Your task to perform on an android device: find which apps use the phone's location Image 0: 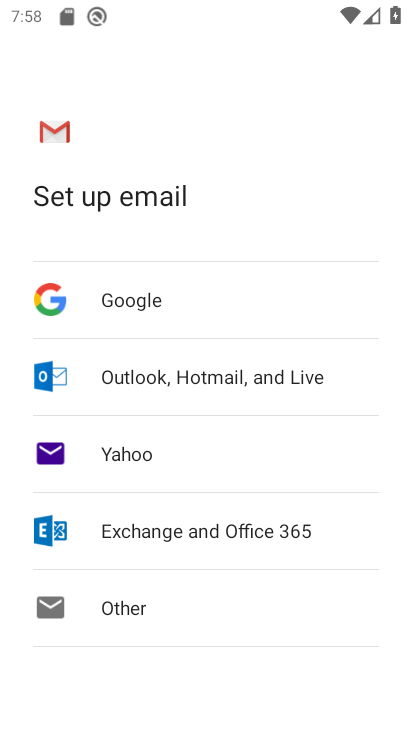
Step 0: press home button
Your task to perform on an android device: find which apps use the phone's location Image 1: 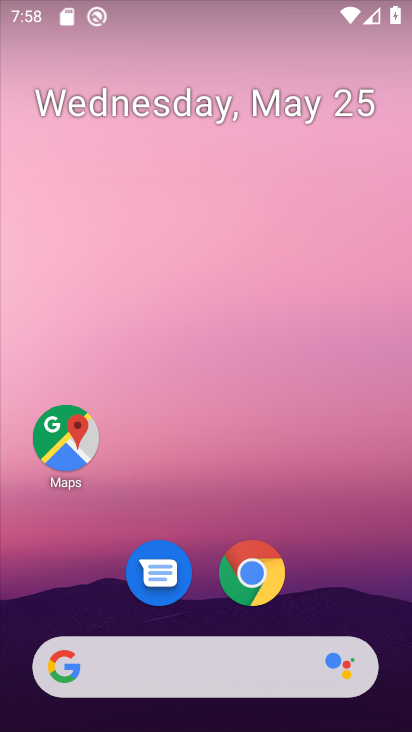
Step 1: drag from (390, 672) to (400, 100)
Your task to perform on an android device: find which apps use the phone's location Image 2: 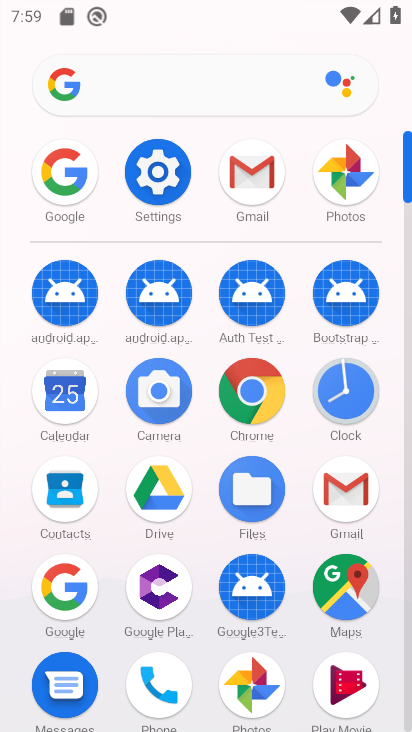
Step 2: click (162, 164)
Your task to perform on an android device: find which apps use the phone's location Image 3: 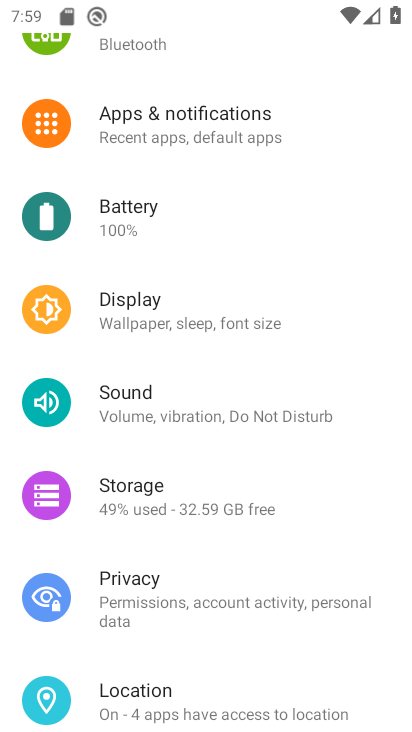
Step 3: click (142, 684)
Your task to perform on an android device: find which apps use the phone's location Image 4: 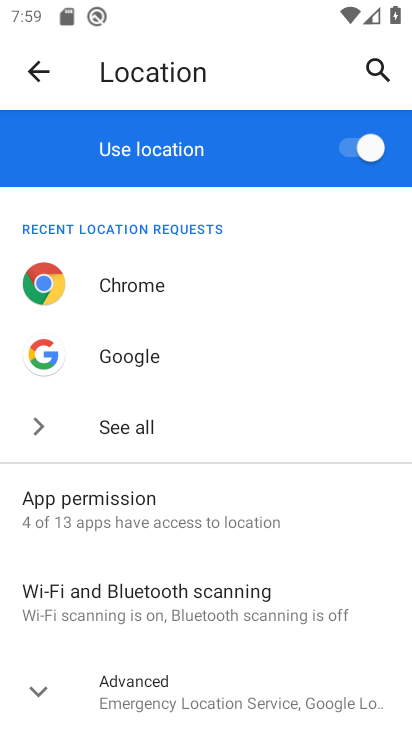
Step 4: click (74, 510)
Your task to perform on an android device: find which apps use the phone's location Image 5: 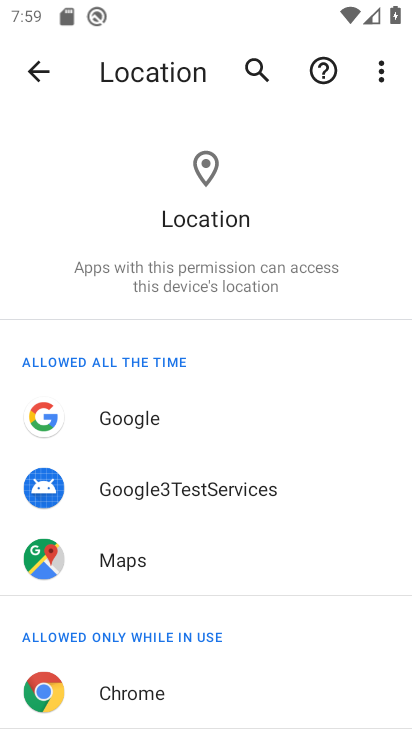
Step 5: task complete